Your task to perform on an android device: toggle show notifications on the lock screen Image 0: 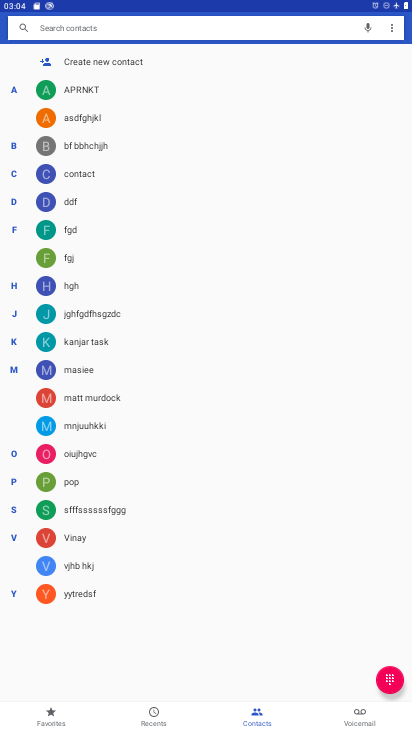
Step 0: press home button
Your task to perform on an android device: toggle show notifications on the lock screen Image 1: 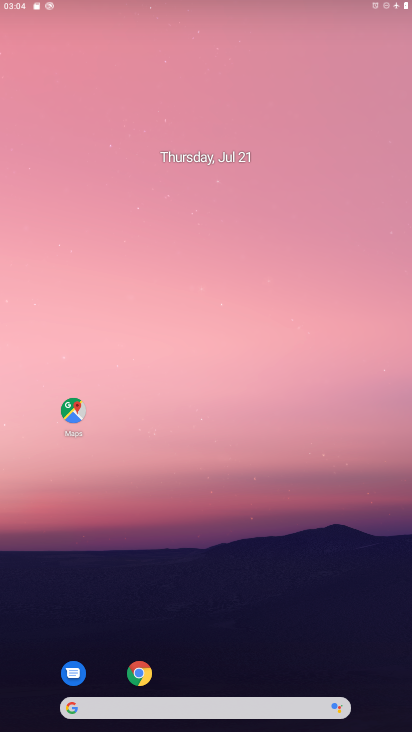
Step 1: drag from (156, 628) to (156, 256)
Your task to perform on an android device: toggle show notifications on the lock screen Image 2: 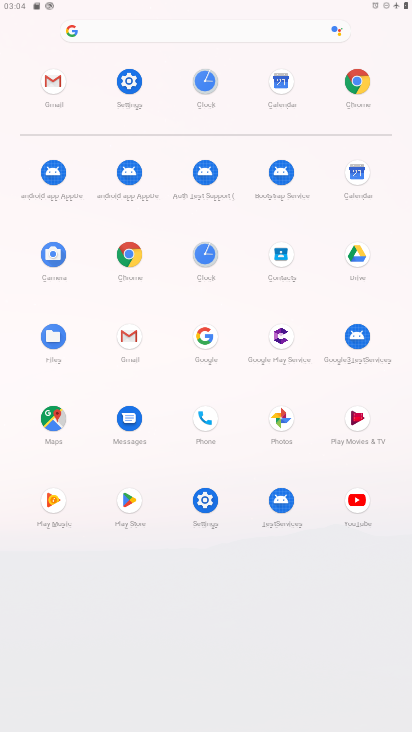
Step 2: click (135, 81)
Your task to perform on an android device: toggle show notifications on the lock screen Image 3: 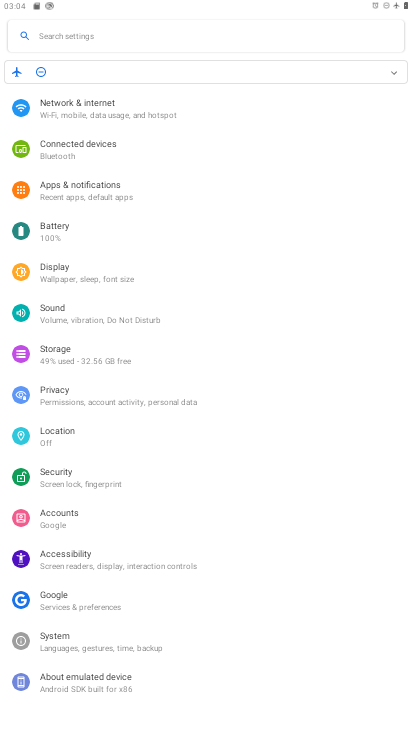
Step 3: click (91, 176)
Your task to perform on an android device: toggle show notifications on the lock screen Image 4: 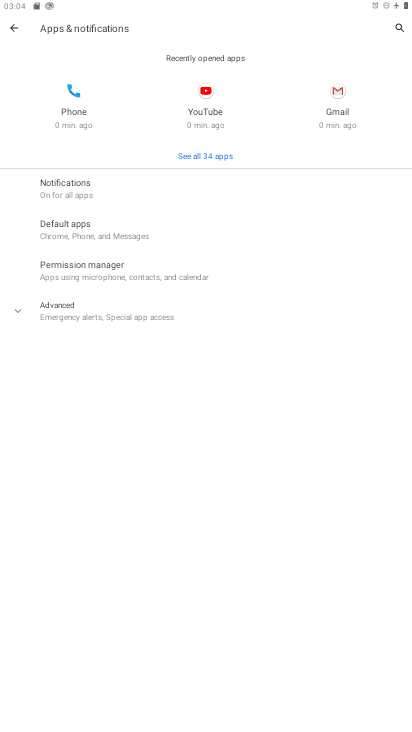
Step 4: click (88, 190)
Your task to perform on an android device: toggle show notifications on the lock screen Image 5: 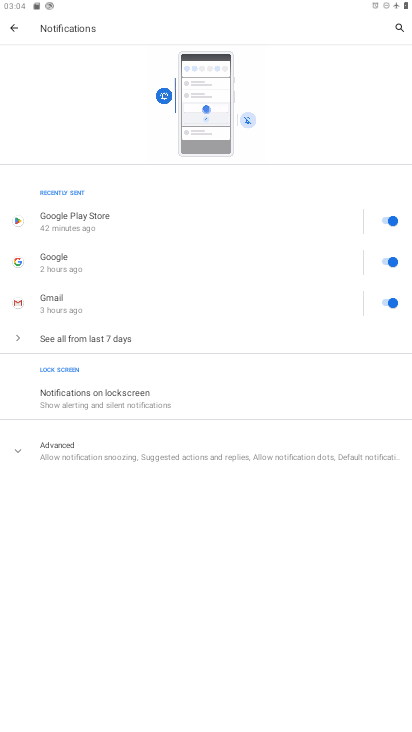
Step 5: click (123, 395)
Your task to perform on an android device: toggle show notifications on the lock screen Image 6: 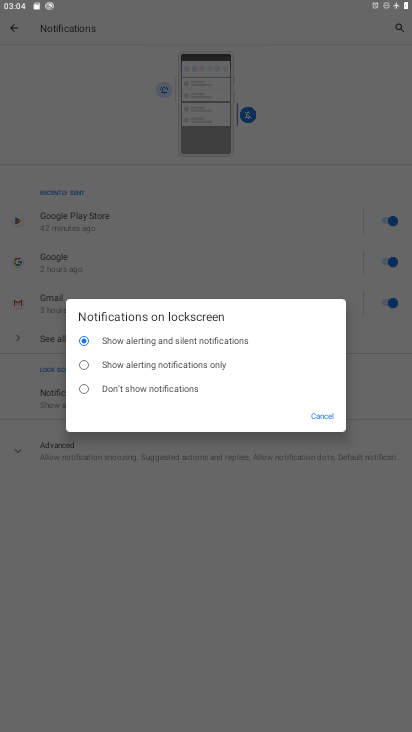
Step 6: click (121, 389)
Your task to perform on an android device: toggle show notifications on the lock screen Image 7: 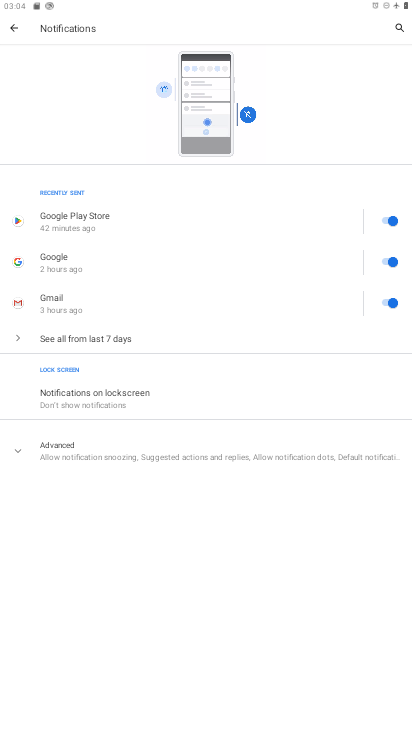
Step 7: task complete